Your task to perform on an android device: see creations saved in the google photos Image 0: 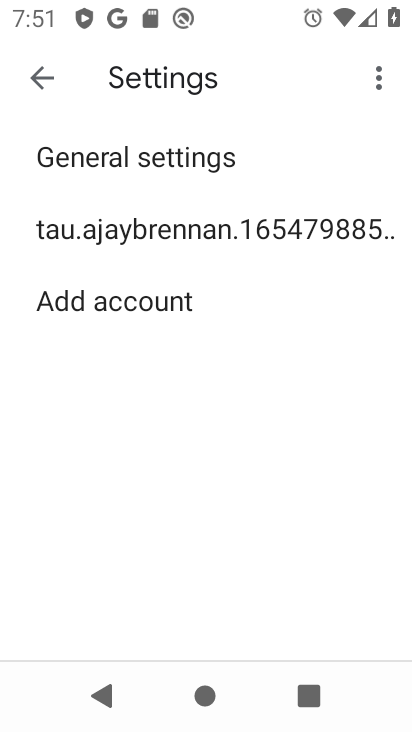
Step 0: press home button
Your task to perform on an android device: see creations saved in the google photos Image 1: 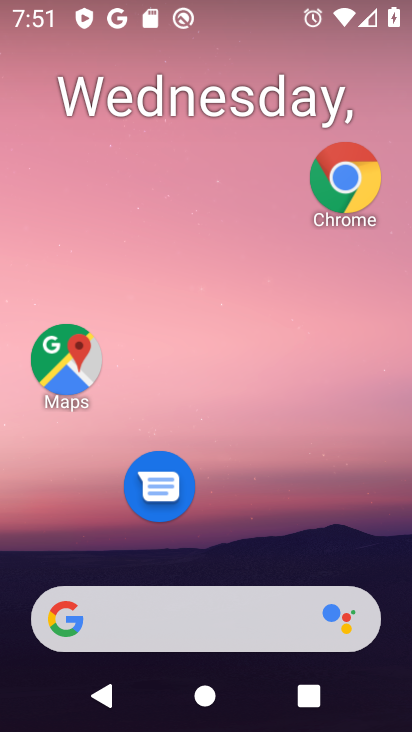
Step 1: drag from (193, 665) to (190, 36)
Your task to perform on an android device: see creations saved in the google photos Image 2: 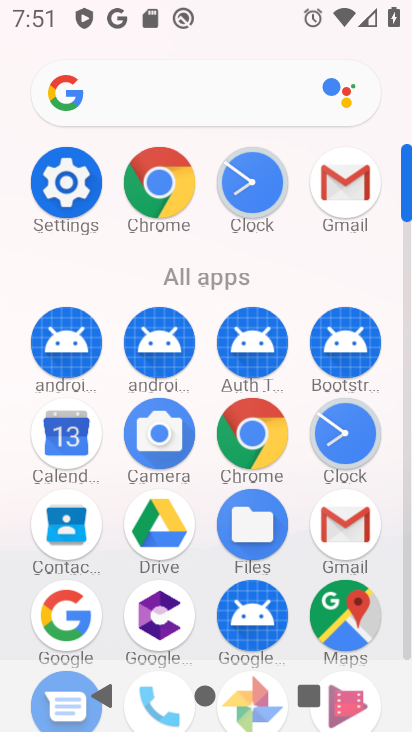
Step 2: drag from (221, 500) to (244, 288)
Your task to perform on an android device: see creations saved in the google photos Image 3: 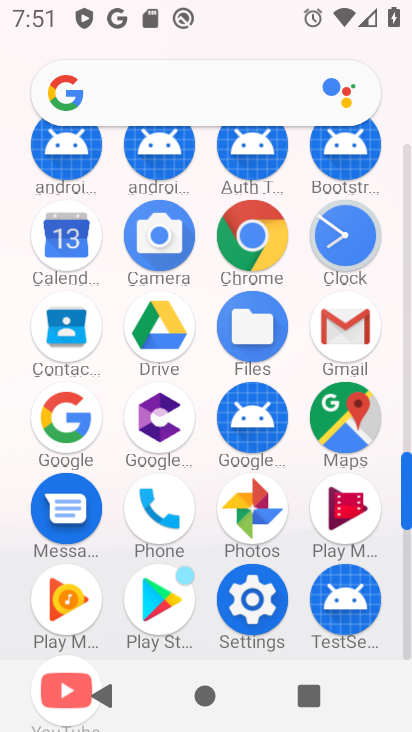
Step 3: click (253, 515)
Your task to perform on an android device: see creations saved in the google photos Image 4: 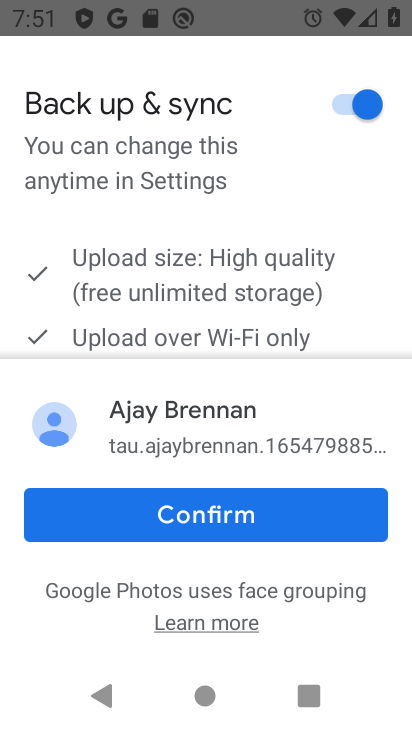
Step 4: click (260, 513)
Your task to perform on an android device: see creations saved in the google photos Image 5: 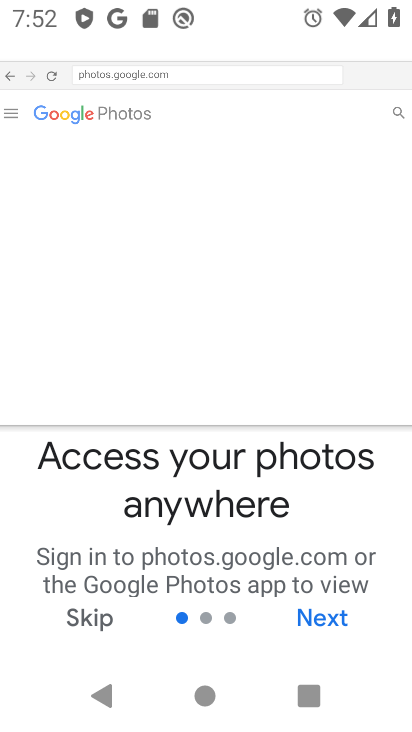
Step 5: click (316, 620)
Your task to perform on an android device: see creations saved in the google photos Image 6: 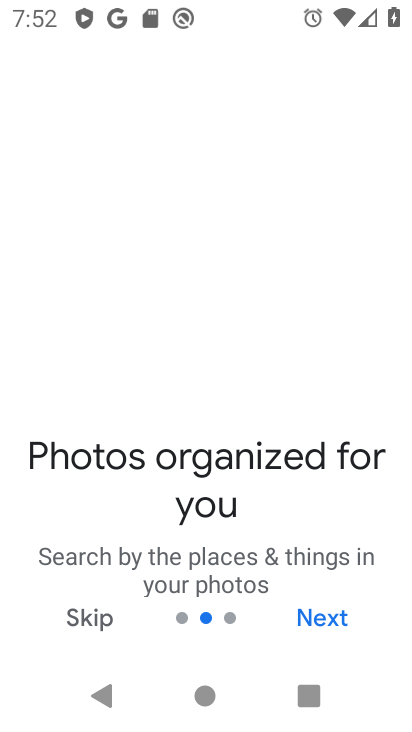
Step 6: click (304, 632)
Your task to perform on an android device: see creations saved in the google photos Image 7: 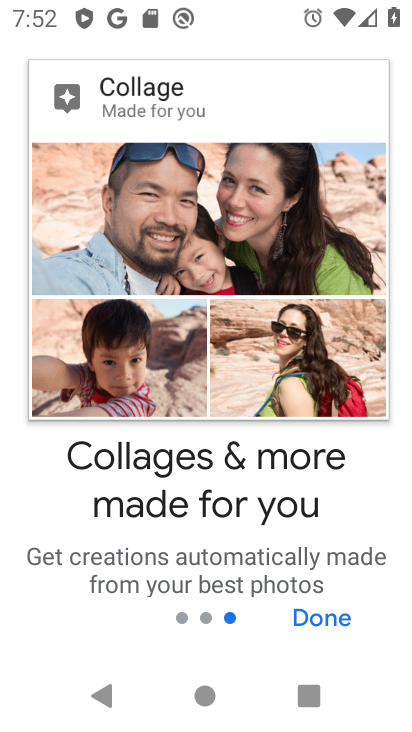
Step 7: click (326, 622)
Your task to perform on an android device: see creations saved in the google photos Image 8: 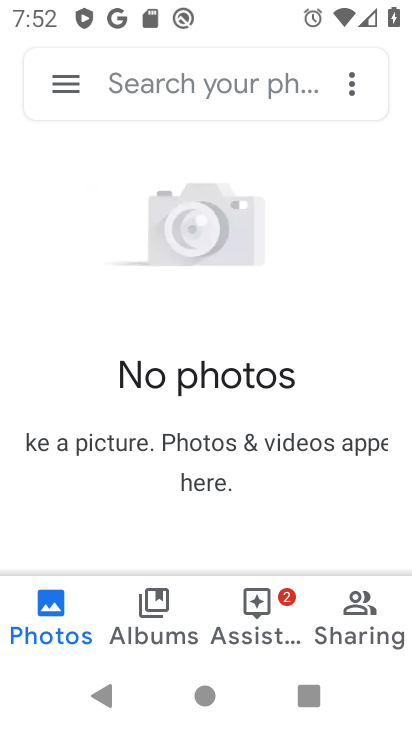
Step 8: click (169, 632)
Your task to perform on an android device: see creations saved in the google photos Image 9: 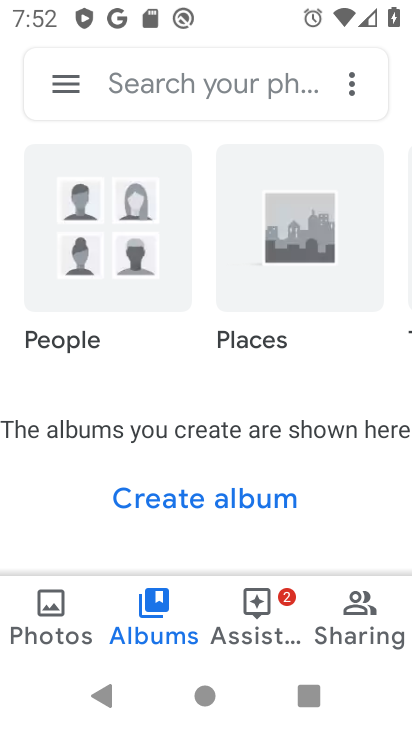
Step 9: click (233, 637)
Your task to perform on an android device: see creations saved in the google photos Image 10: 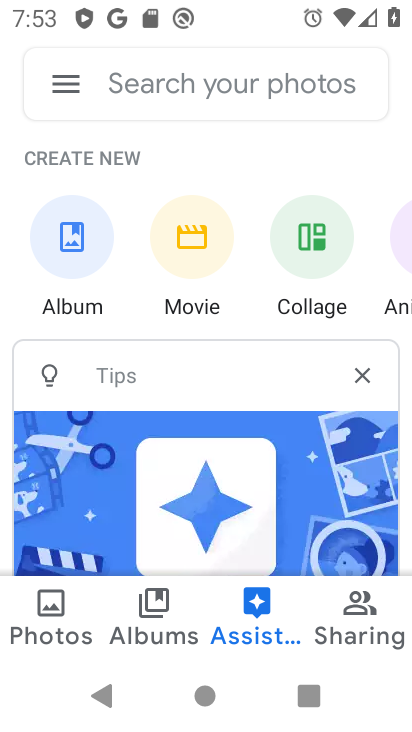
Step 10: task complete